Your task to perform on an android device: turn off translation in the chrome app Image 0: 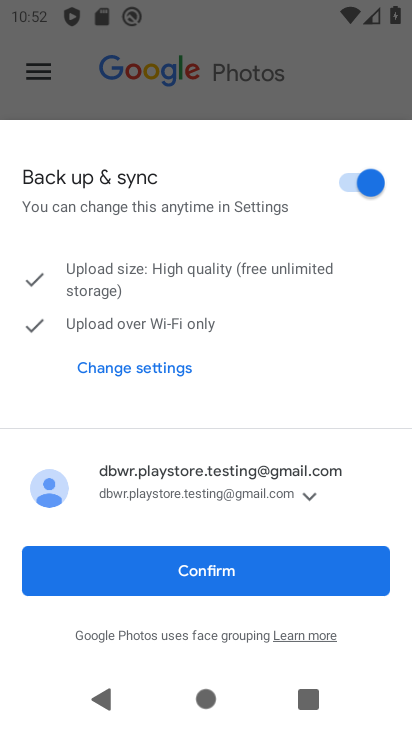
Step 0: click (337, 593)
Your task to perform on an android device: turn off translation in the chrome app Image 1: 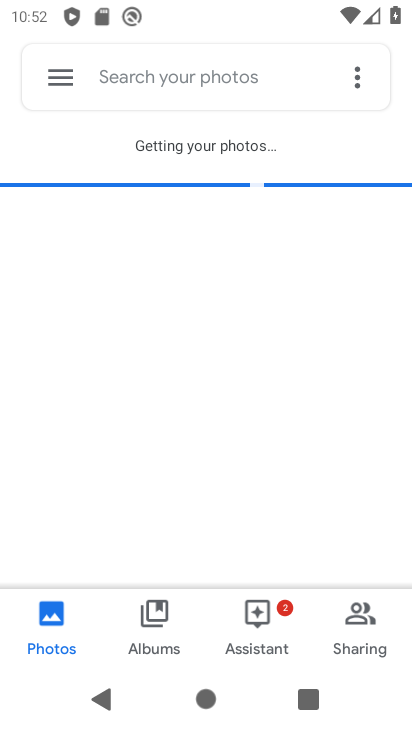
Step 1: press home button
Your task to perform on an android device: turn off translation in the chrome app Image 2: 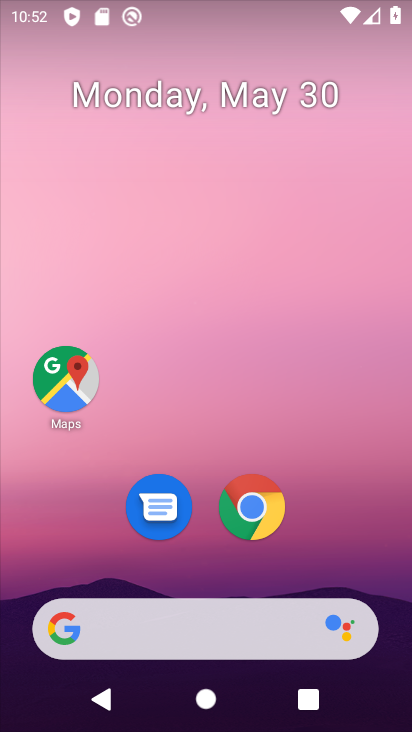
Step 2: click (256, 504)
Your task to perform on an android device: turn off translation in the chrome app Image 3: 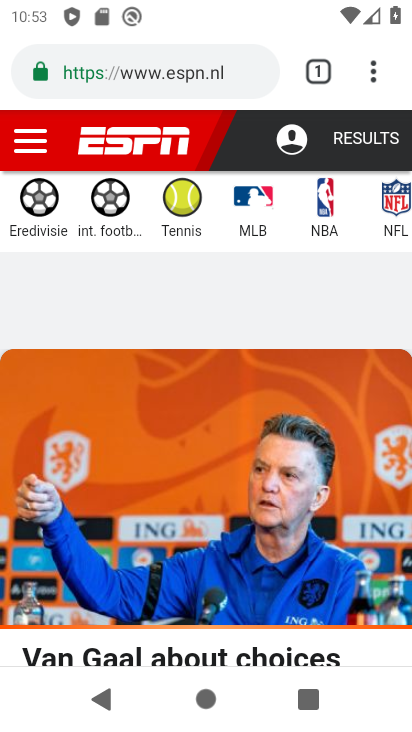
Step 3: click (376, 65)
Your task to perform on an android device: turn off translation in the chrome app Image 4: 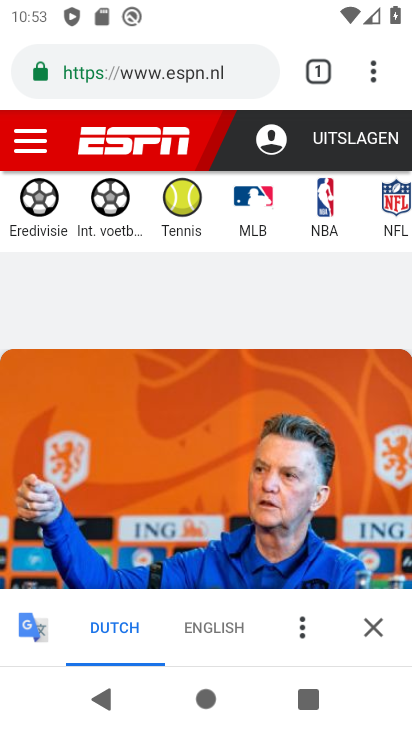
Step 4: click (366, 72)
Your task to perform on an android device: turn off translation in the chrome app Image 5: 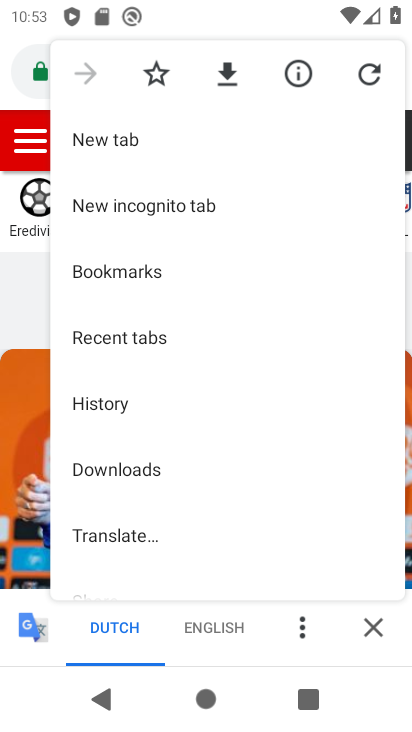
Step 5: drag from (196, 507) to (161, 216)
Your task to perform on an android device: turn off translation in the chrome app Image 6: 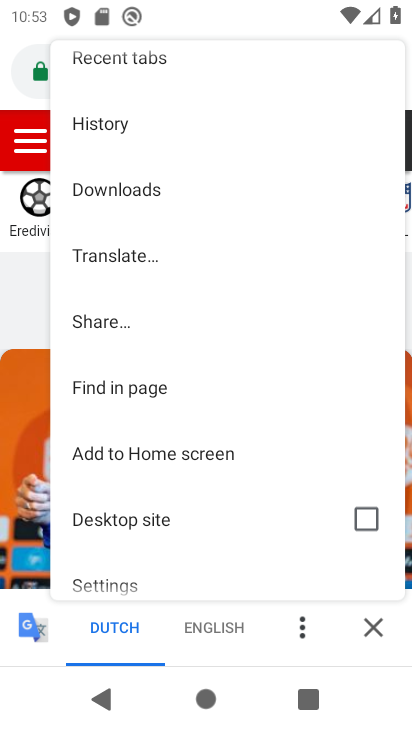
Step 6: click (119, 583)
Your task to perform on an android device: turn off translation in the chrome app Image 7: 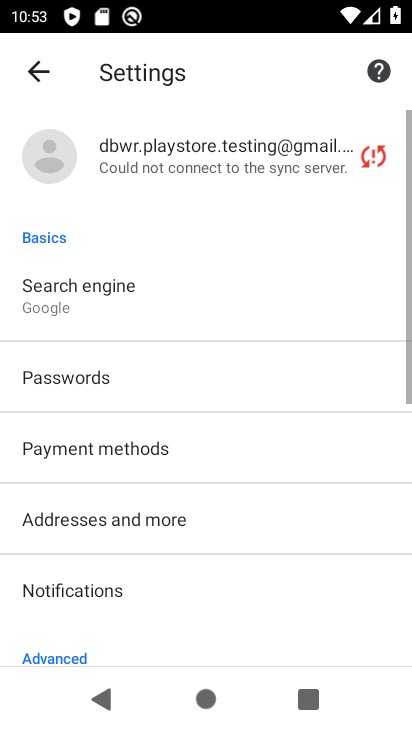
Step 7: drag from (179, 622) to (187, 256)
Your task to perform on an android device: turn off translation in the chrome app Image 8: 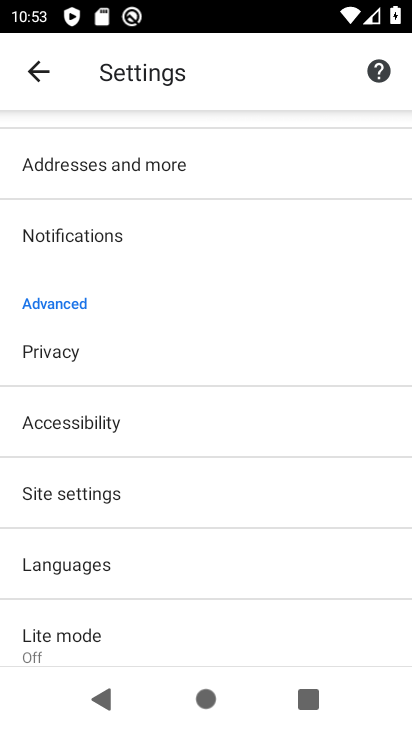
Step 8: click (102, 574)
Your task to perform on an android device: turn off translation in the chrome app Image 9: 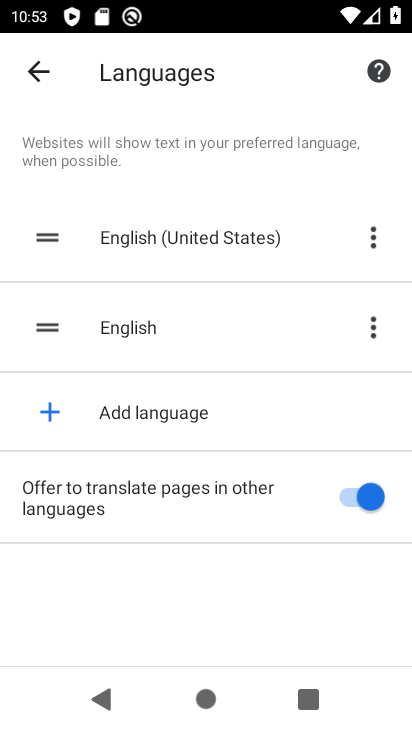
Step 9: click (368, 502)
Your task to perform on an android device: turn off translation in the chrome app Image 10: 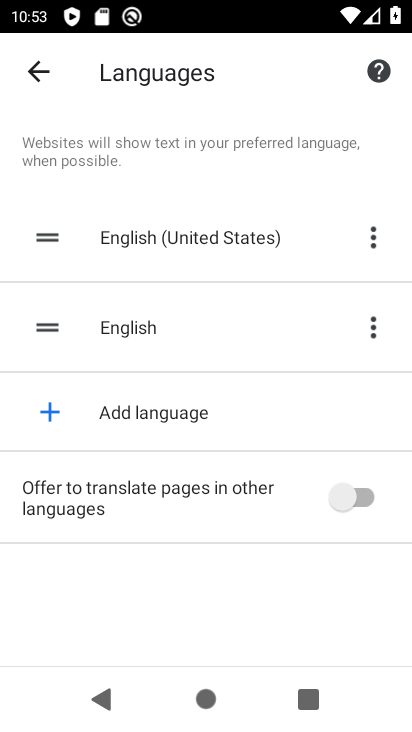
Step 10: task complete